Your task to perform on an android device: choose inbox layout in the gmail app Image 0: 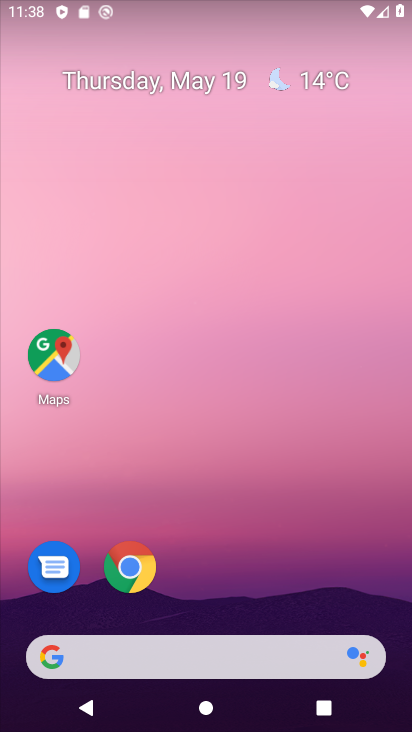
Step 0: drag from (264, 596) to (226, 79)
Your task to perform on an android device: choose inbox layout in the gmail app Image 1: 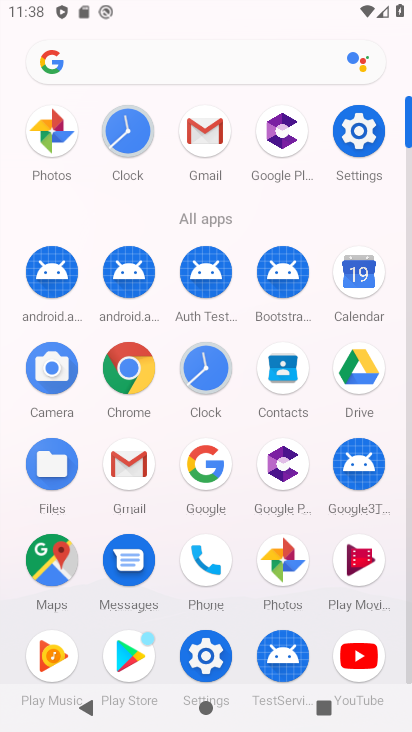
Step 1: click (208, 134)
Your task to perform on an android device: choose inbox layout in the gmail app Image 2: 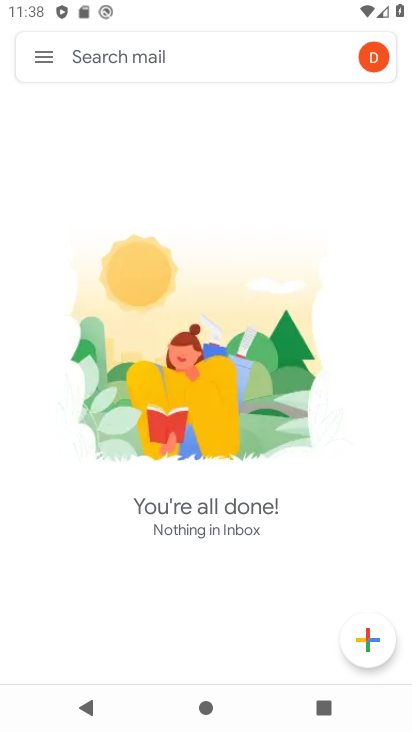
Step 2: click (29, 65)
Your task to perform on an android device: choose inbox layout in the gmail app Image 3: 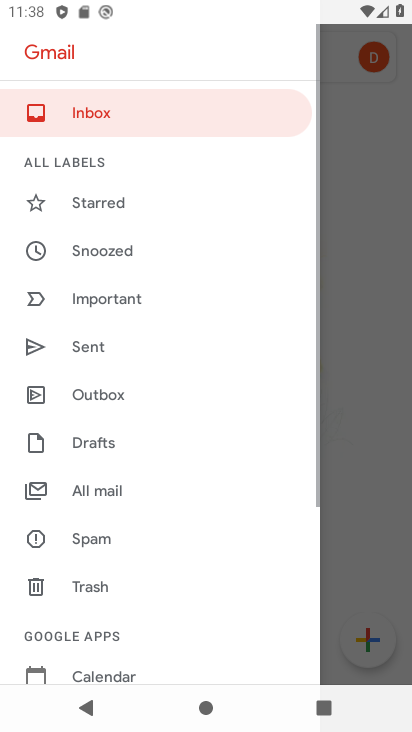
Step 3: drag from (120, 585) to (149, 195)
Your task to perform on an android device: choose inbox layout in the gmail app Image 4: 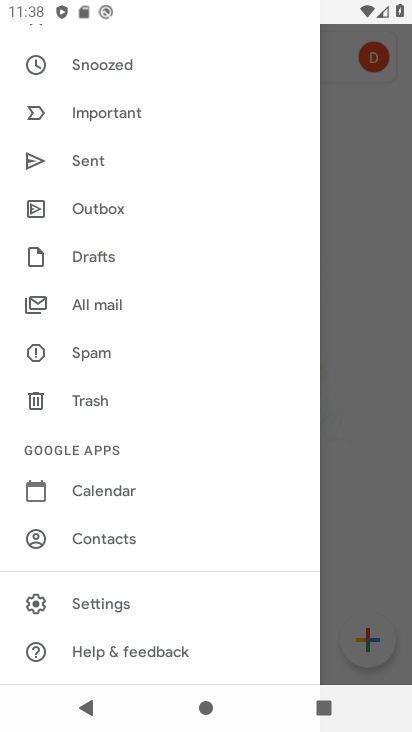
Step 4: click (111, 604)
Your task to perform on an android device: choose inbox layout in the gmail app Image 5: 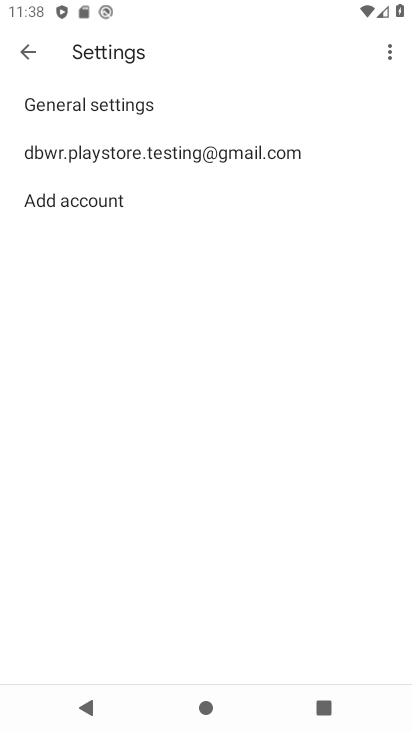
Step 5: click (161, 154)
Your task to perform on an android device: choose inbox layout in the gmail app Image 6: 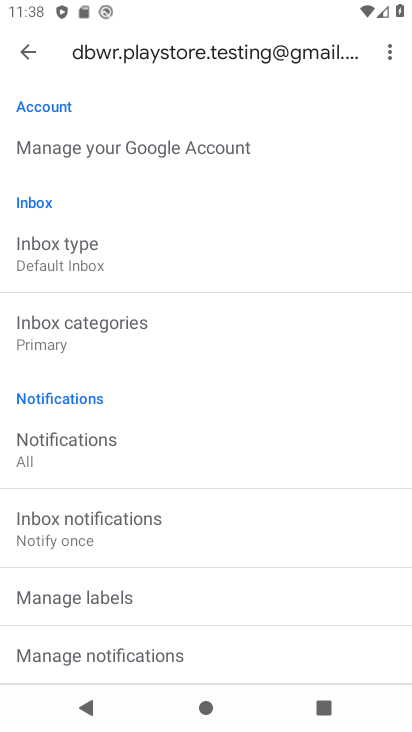
Step 6: click (44, 257)
Your task to perform on an android device: choose inbox layout in the gmail app Image 7: 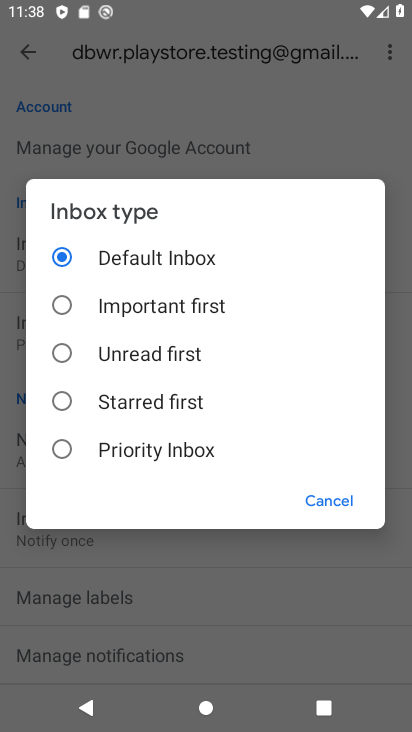
Step 7: click (68, 317)
Your task to perform on an android device: choose inbox layout in the gmail app Image 8: 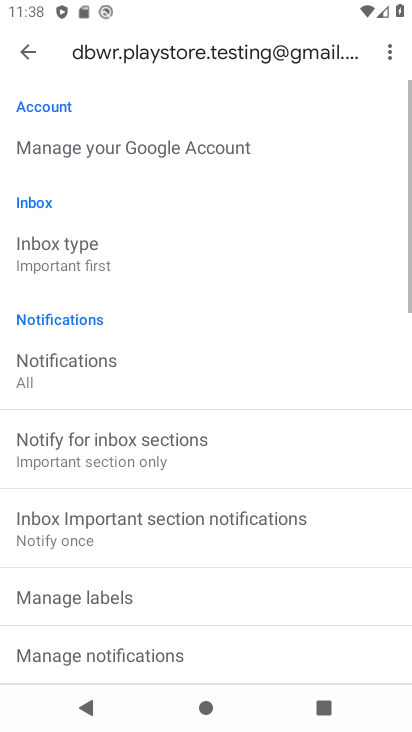
Step 8: task complete